Your task to perform on an android device: move an email to a new category in the gmail app Image 0: 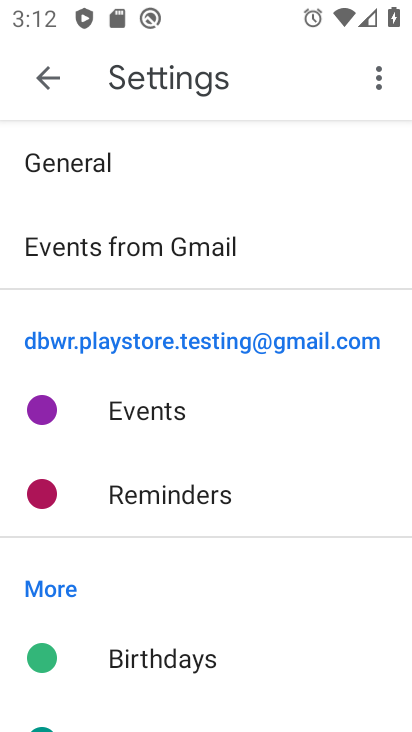
Step 0: press home button
Your task to perform on an android device: move an email to a new category in the gmail app Image 1: 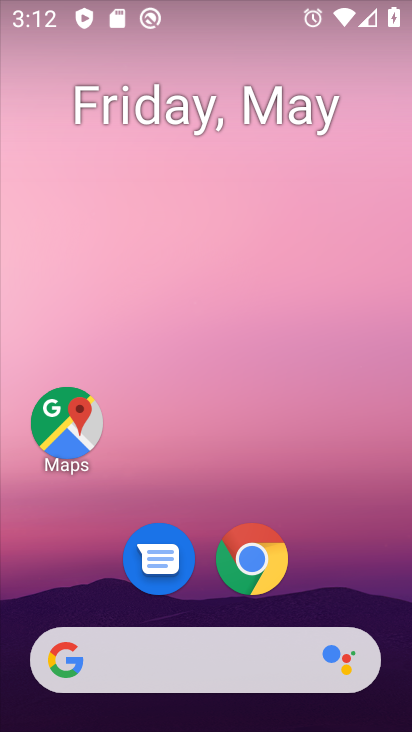
Step 1: drag from (362, 591) to (341, 276)
Your task to perform on an android device: move an email to a new category in the gmail app Image 2: 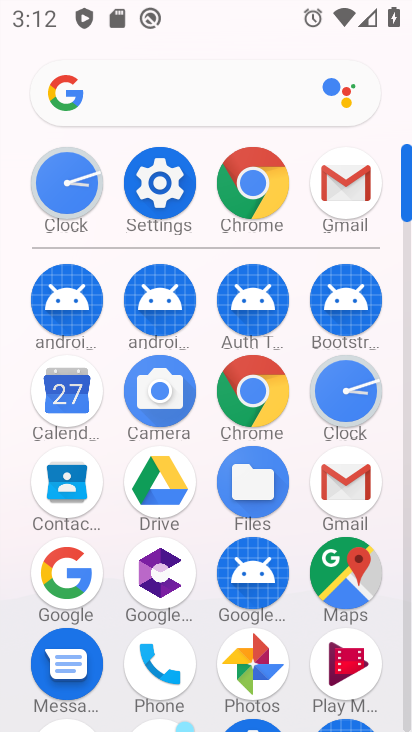
Step 2: click (328, 484)
Your task to perform on an android device: move an email to a new category in the gmail app Image 3: 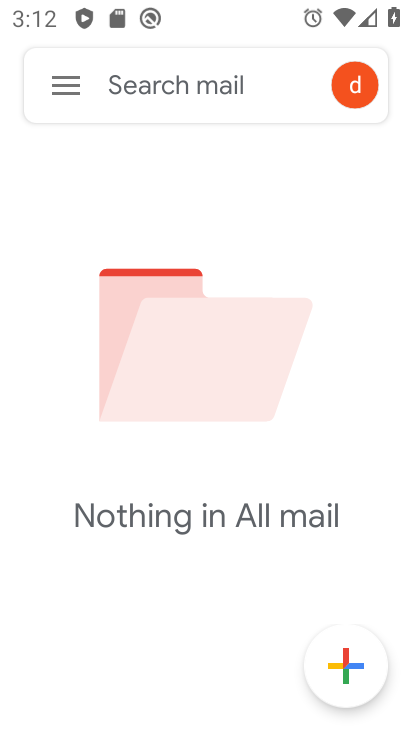
Step 3: click (56, 87)
Your task to perform on an android device: move an email to a new category in the gmail app Image 4: 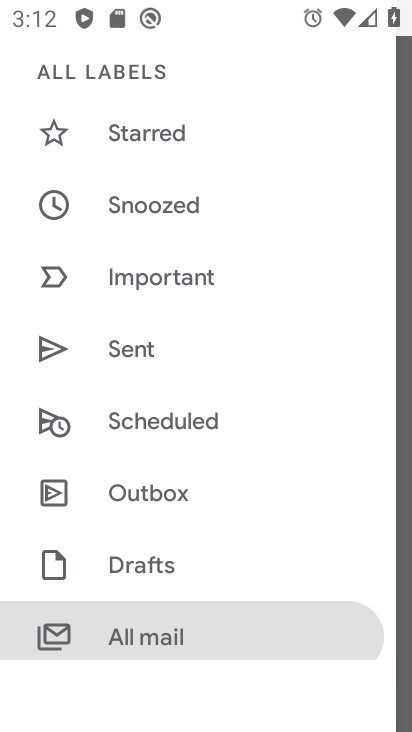
Step 4: click (130, 256)
Your task to perform on an android device: move an email to a new category in the gmail app Image 5: 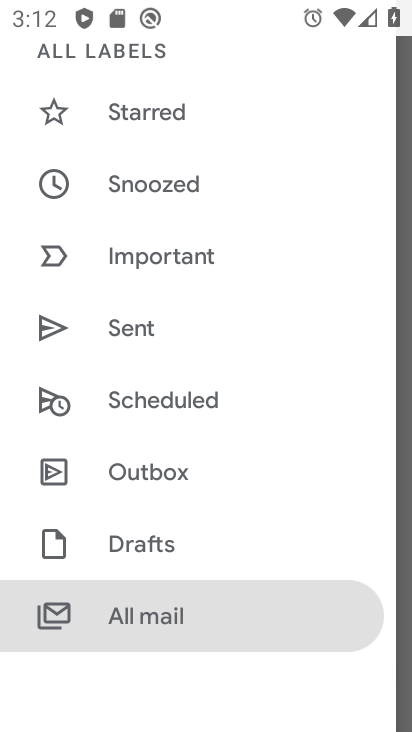
Step 5: click (184, 605)
Your task to perform on an android device: move an email to a new category in the gmail app Image 6: 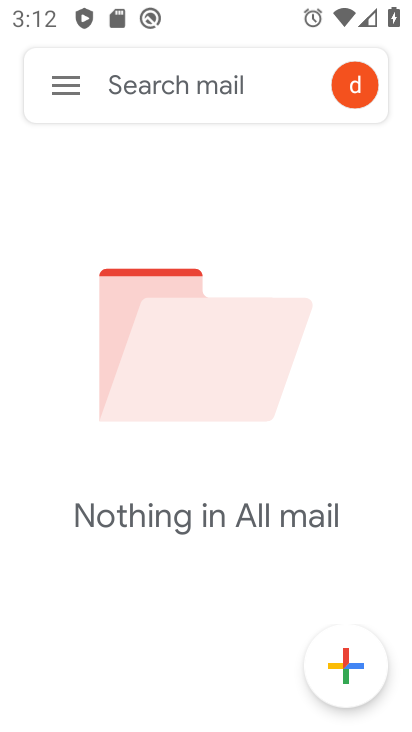
Step 6: task complete